Your task to perform on an android device: Open maps Image 0: 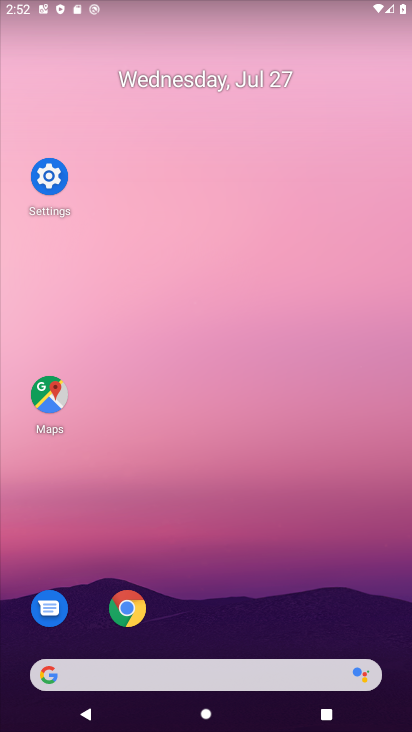
Step 0: click (30, 408)
Your task to perform on an android device: Open maps Image 1: 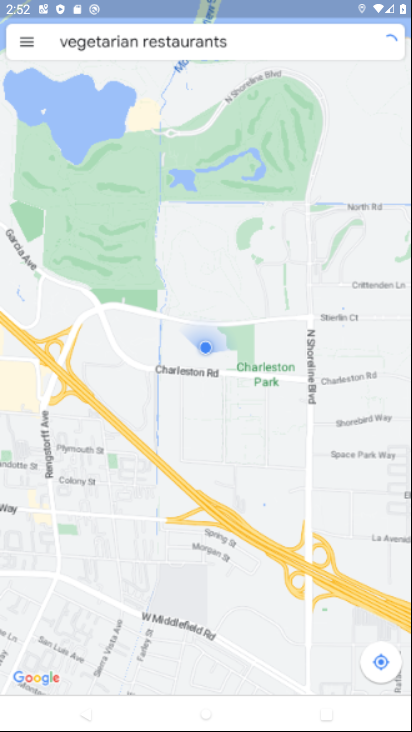
Step 1: task complete